Your task to perform on an android device: Turn on the flashlight Image 0: 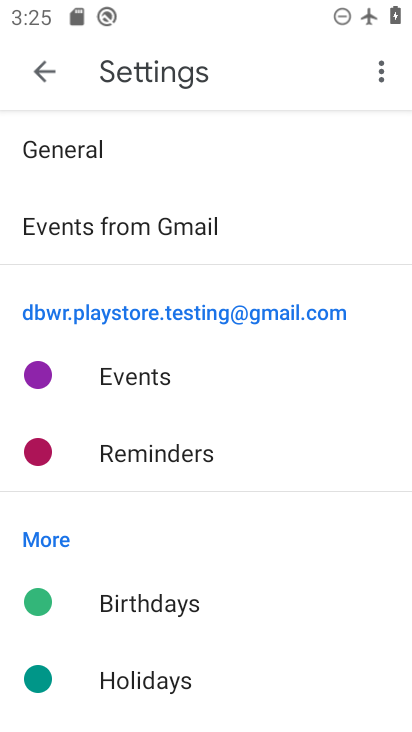
Step 0: press home button
Your task to perform on an android device: Turn on the flashlight Image 1: 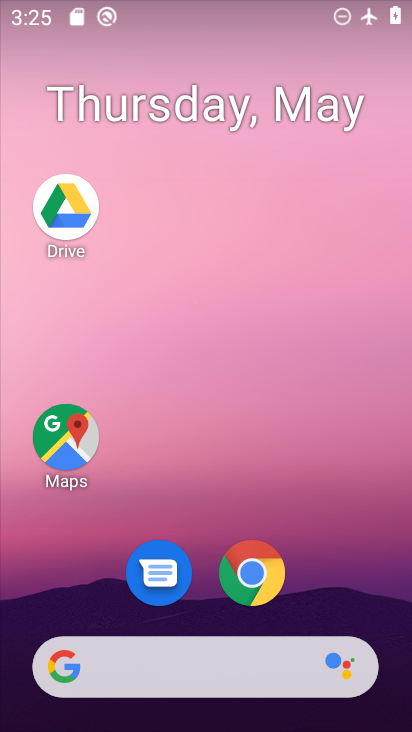
Step 1: drag from (301, 542) to (228, 70)
Your task to perform on an android device: Turn on the flashlight Image 2: 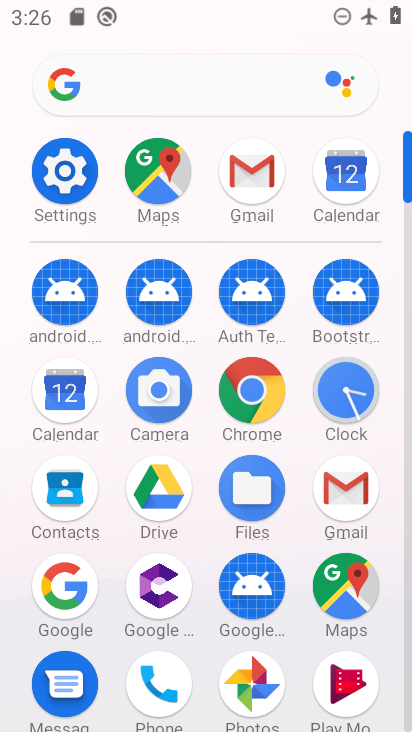
Step 2: click (72, 172)
Your task to perform on an android device: Turn on the flashlight Image 3: 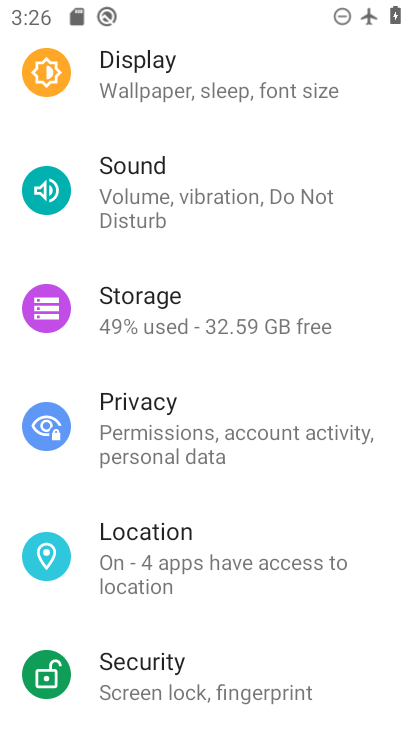
Step 3: drag from (206, 255) to (191, 582)
Your task to perform on an android device: Turn on the flashlight Image 4: 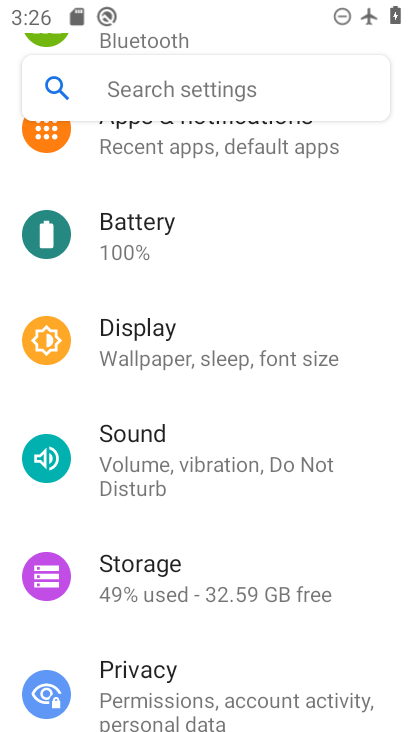
Step 4: drag from (197, 555) to (181, 236)
Your task to perform on an android device: Turn on the flashlight Image 5: 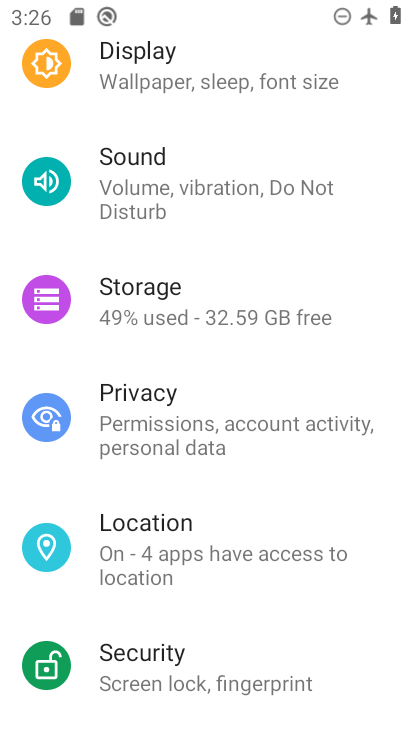
Step 5: drag from (261, 245) to (263, 718)
Your task to perform on an android device: Turn on the flashlight Image 6: 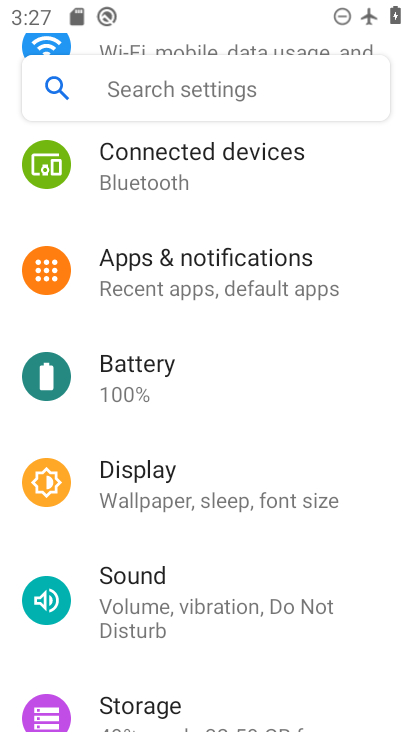
Step 6: click (134, 491)
Your task to perform on an android device: Turn on the flashlight Image 7: 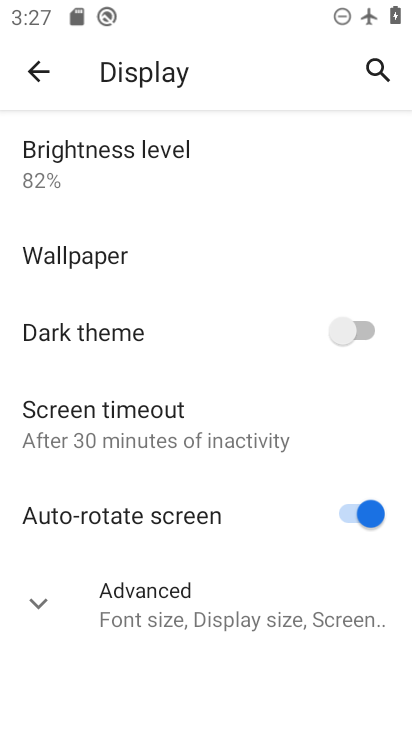
Step 7: drag from (118, 224) to (155, 719)
Your task to perform on an android device: Turn on the flashlight Image 8: 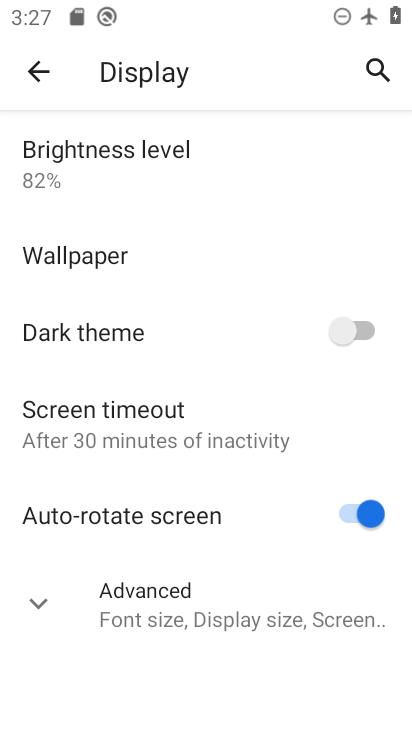
Step 8: click (41, 76)
Your task to perform on an android device: Turn on the flashlight Image 9: 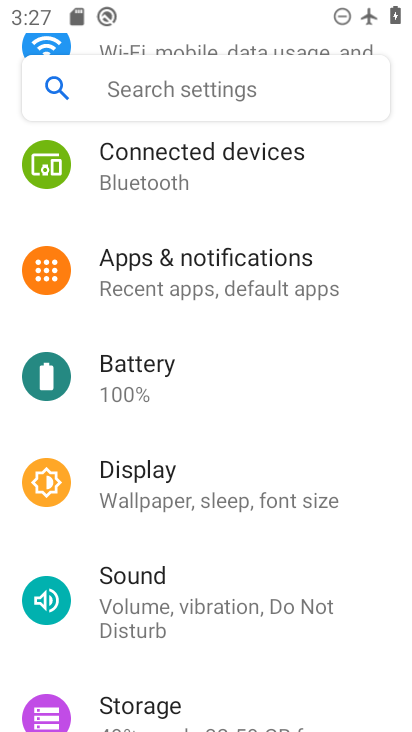
Step 9: task complete